Your task to perform on an android device: turn on priority inbox in the gmail app Image 0: 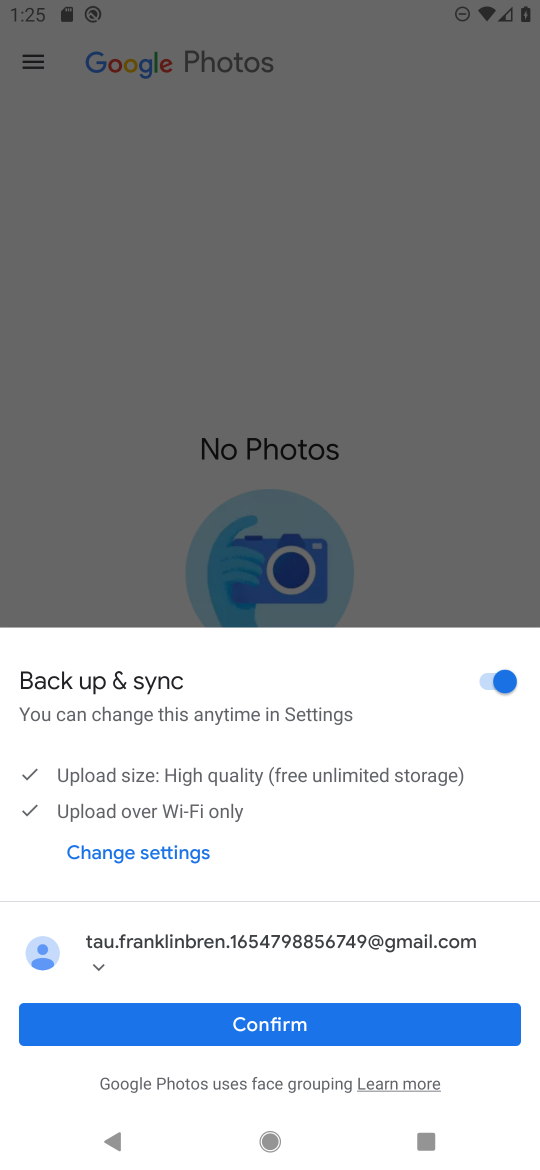
Step 0: press home button
Your task to perform on an android device: turn on priority inbox in the gmail app Image 1: 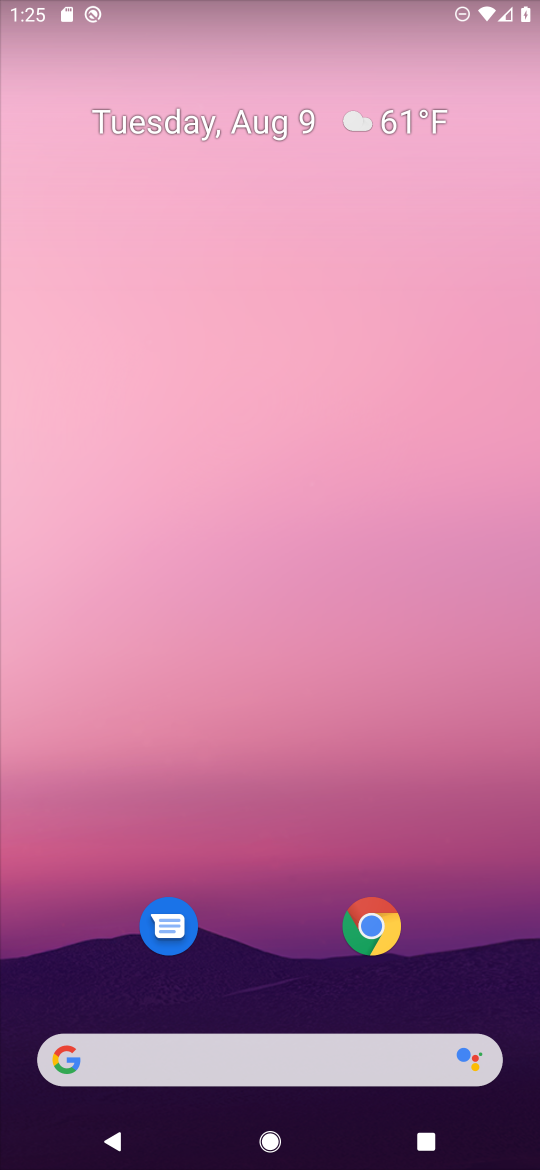
Step 1: drag from (39, 994) to (421, 83)
Your task to perform on an android device: turn on priority inbox in the gmail app Image 2: 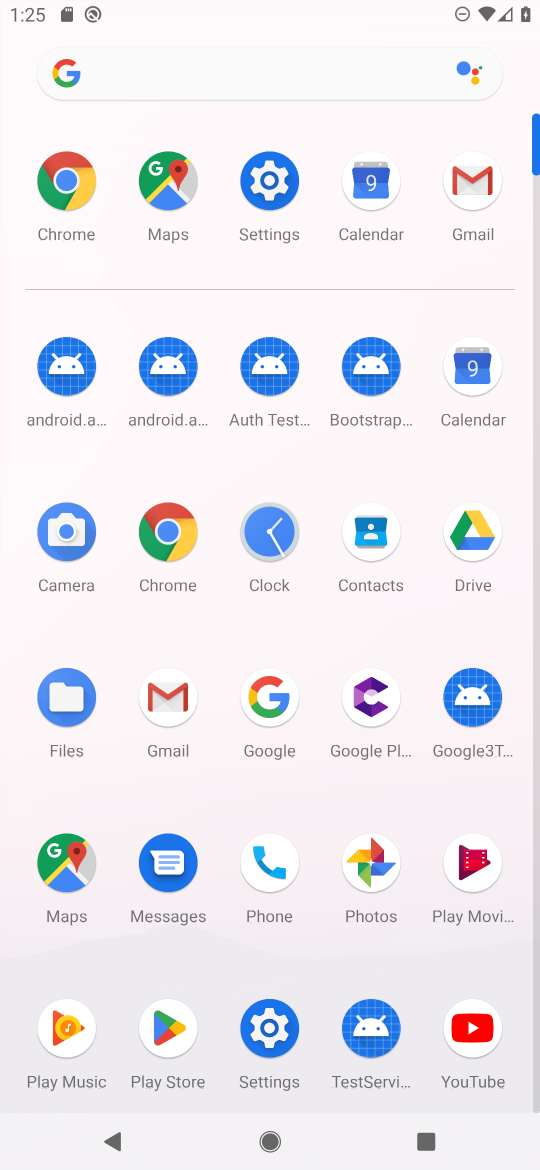
Step 2: click (164, 699)
Your task to perform on an android device: turn on priority inbox in the gmail app Image 3: 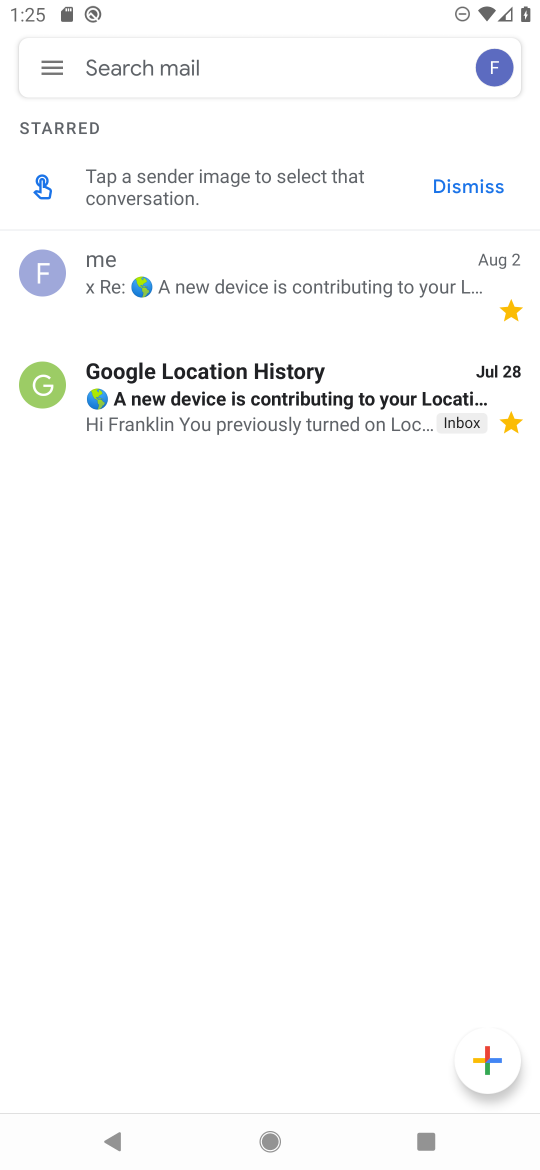
Step 3: click (52, 69)
Your task to perform on an android device: turn on priority inbox in the gmail app Image 4: 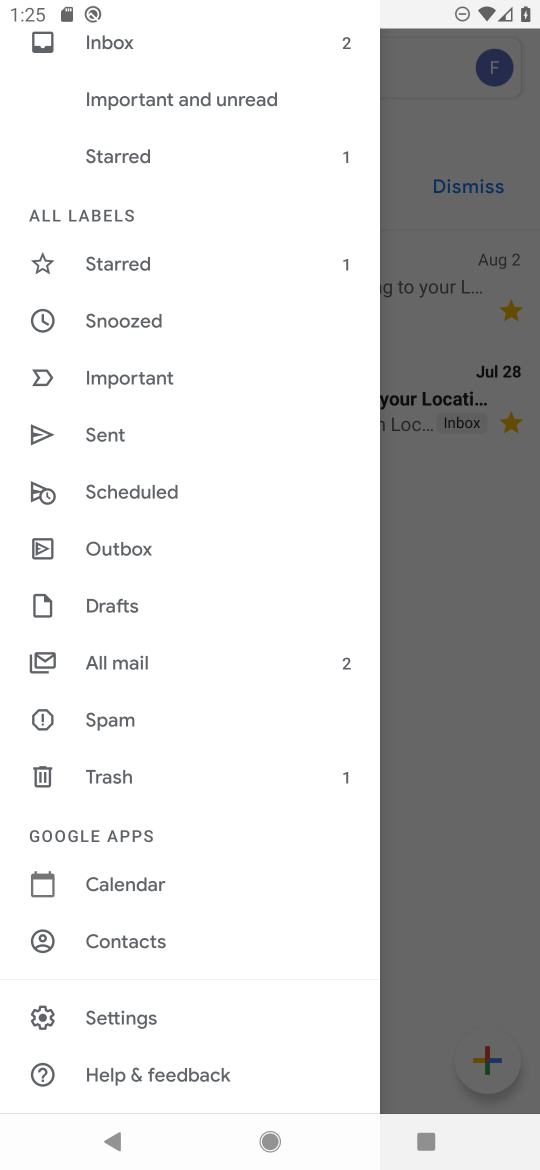
Step 4: click (150, 1002)
Your task to perform on an android device: turn on priority inbox in the gmail app Image 5: 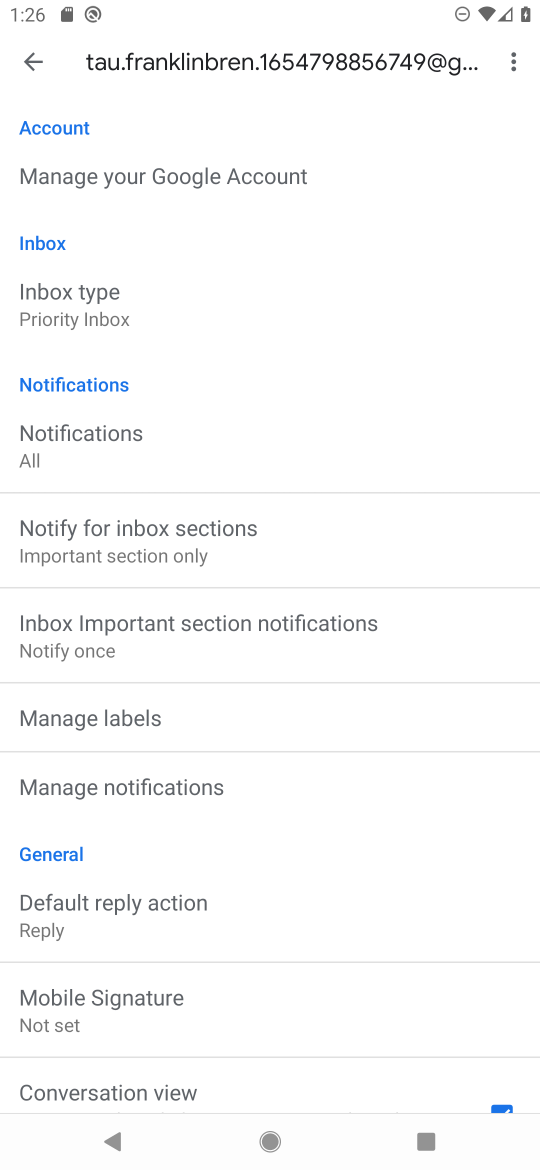
Step 5: task complete